Your task to perform on an android device: Clear all items from cart on newegg. Add duracell triple a to the cart on newegg, then select checkout. Image 0: 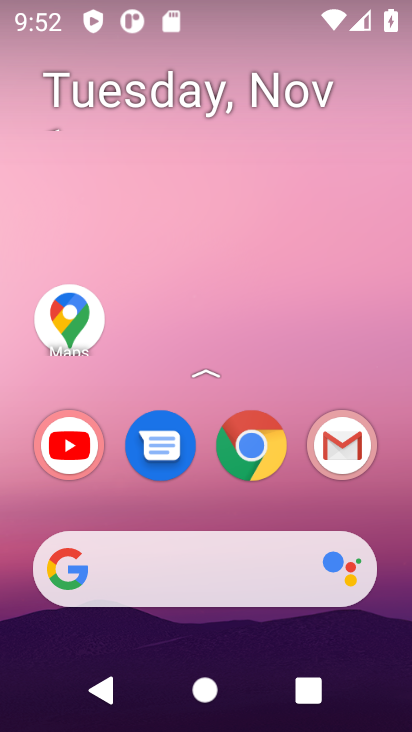
Step 0: click (245, 441)
Your task to perform on an android device: Clear all items from cart on newegg. Add duracell triple a to the cart on newegg, then select checkout. Image 1: 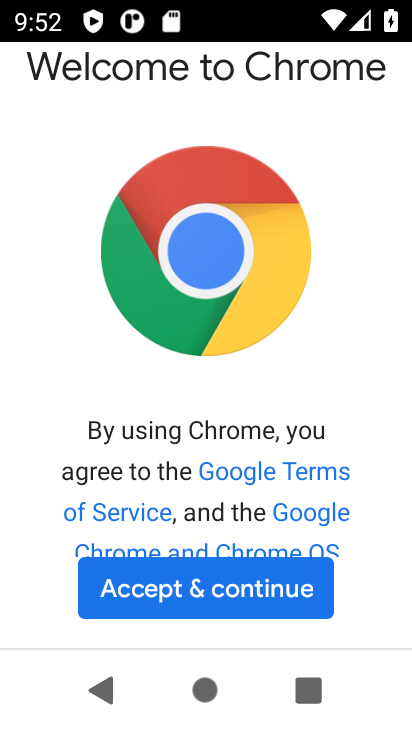
Step 1: click (207, 591)
Your task to perform on an android device: Clear all items from cart on newegg. Add duracell triple a to the cart on newegg, then select checkout. Image 2: 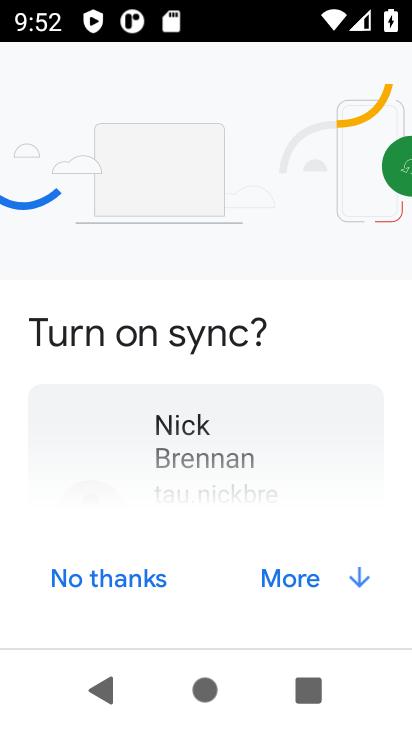
Step 2: click (358, 576)
Your task to perform on an android device: Clear all items from cart on newegg. Add duracell triple a to the cart on newegg, then select checkout. Image 3: 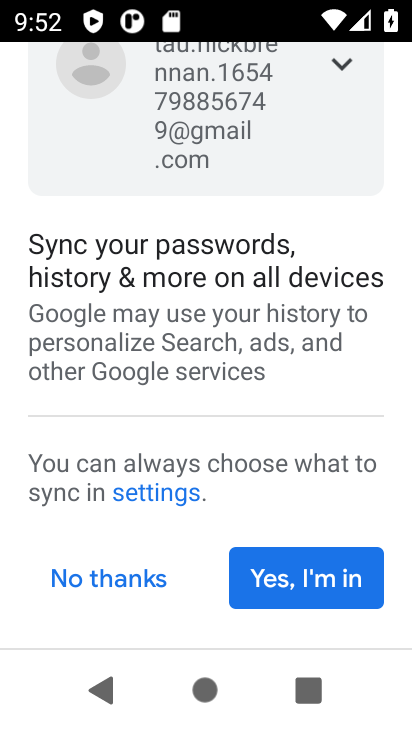
Step 3: click (302, 575)
Your task to perform on an android device: Clear all items from cart on newegg. Add duracell triple a to the cart on newegg, then select checkout. Image 4: 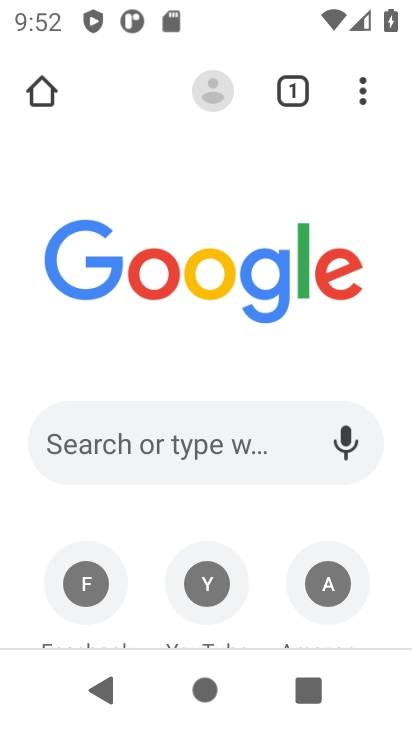
Step 4: click (220, 442)
Your task to perform on an android device: Clear all items from cart on newegg. Add duracell triple a to the cart on newegg, then select checkout. Image 5: 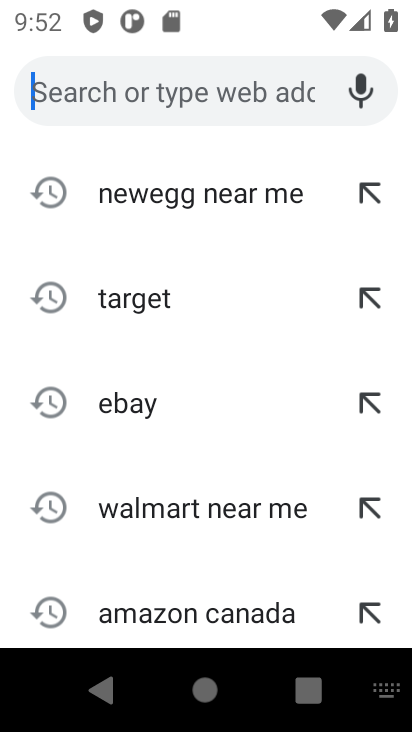
Step 5: type "newegg"
Your task to perform on an android device: Clear all items from cart on newegg. Add duracell triple a to the cart on newegg, then select checkout. Image 6: 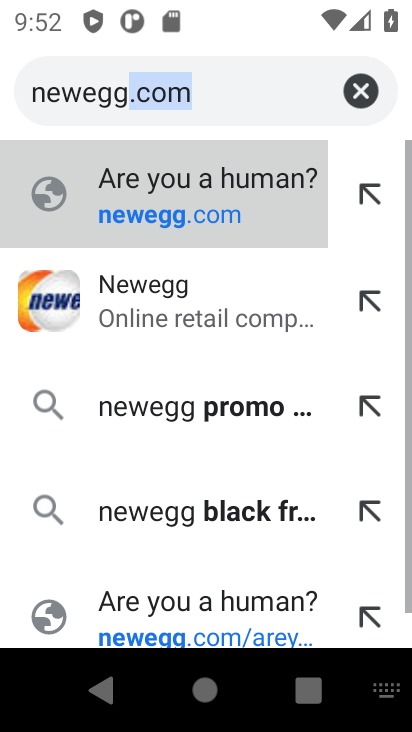
Step 6: press enter
Your task to perform on an android device: Clear all items from cart on newegg. Add duracell triple a to the cart on newegg, then select checkout. Image 7: 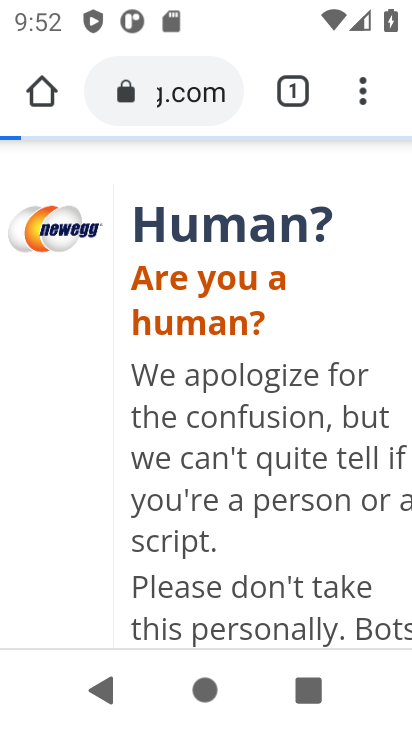
Step 7: click (217, 93)
Your task to perform on an android device: Clear all items from cart on newegg. Add duracell triple a to the cart on newegg, then select checkout. Image 8: 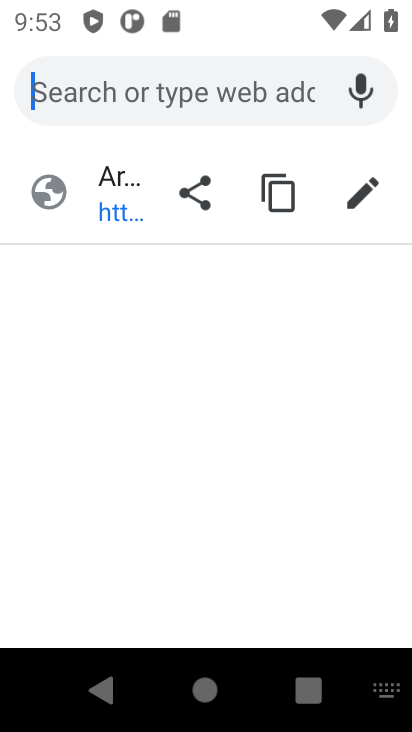
Step 8: type "newegg"
Your task to perform on an android device: Clear all items from cart on newegg. Add duracell triple a to the cart on newegg, then select checkout. Image 9: 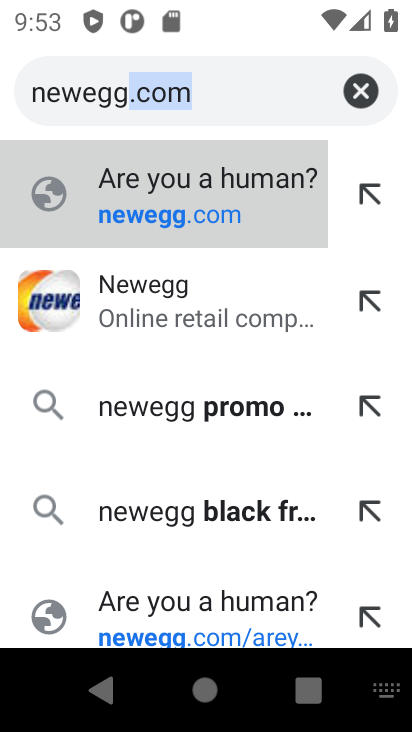
Step 9: click (214, 90)
Your task to perform on an android device: Clear all items from cart on newegg. Add duracell triple a to the cart on newegg, then select checkout. Image 10: 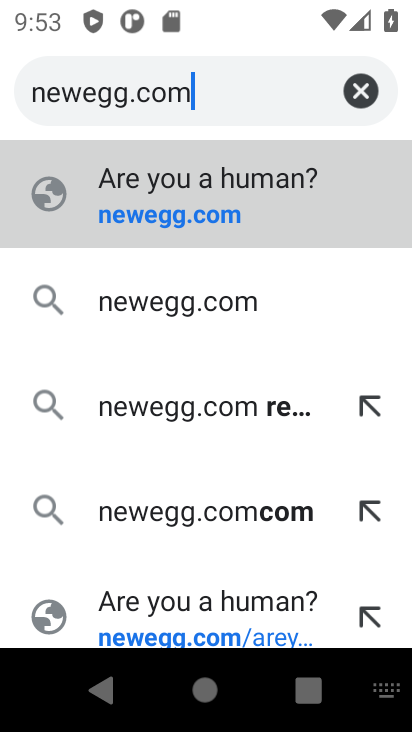
Step 10: click (193, 288)
Your task to perform on an android device: Clear all items from cart on newegg. Add duracell triple a to the cart on newegg, then select checkout. Image 11: 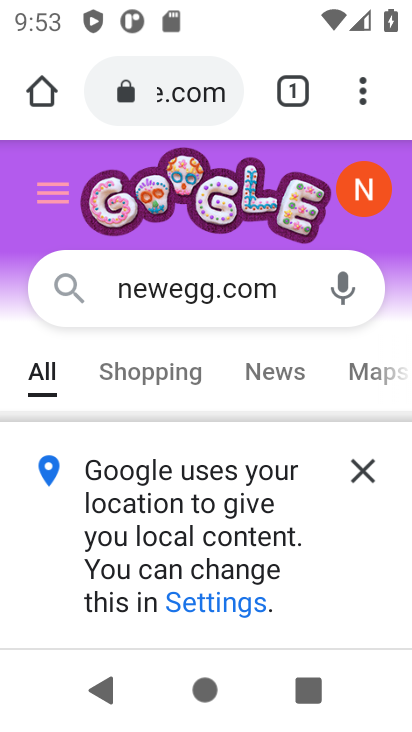
Step 11: click (360, 471)
Your task to perform on an android device: Clear all items from cart on newegg. Add duracell triple a to the cart on newegg, then select checkout. Image 12: 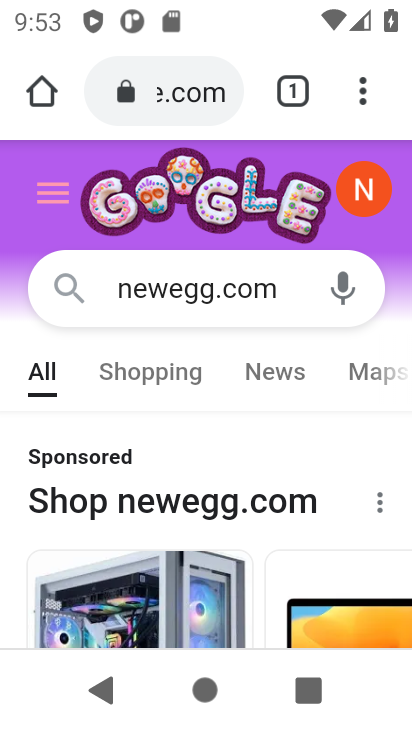
Step 12: drag from (245, 532) to (267, 210)
Your task to perform on an android device: Clear all items from cart on newegg. Add duracell triple a to the cart on newegg, then select checkout. Image 13: 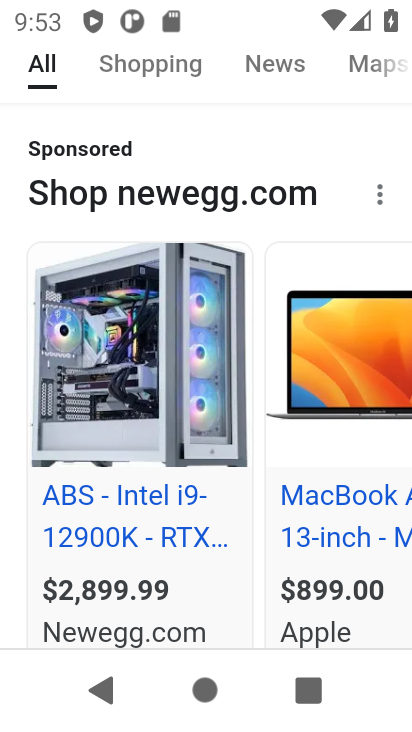
Step 13: drag from (205, 571) to (261, 165)
Your task to perform on an android device: Clear all items from cart on newegg. Add duracell triple a to the cart on newegg, then select checkout. Image 14: 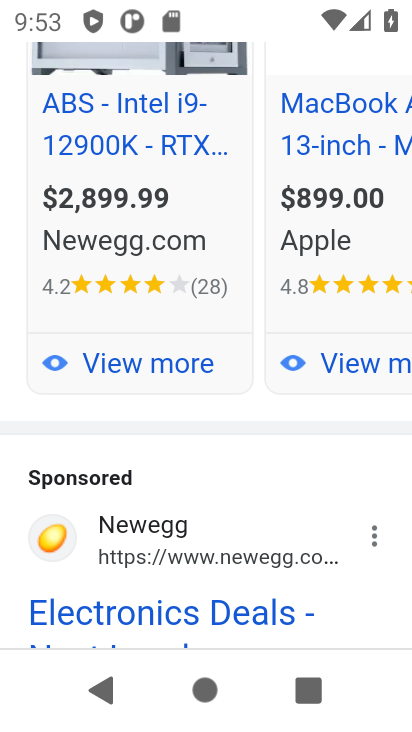
Step 14: click (170, 527)
Your task to perform on an android device: Clear all items from cart on newegg. Add duracell triple a to the cart on newegg, then select checkout. Image 15: 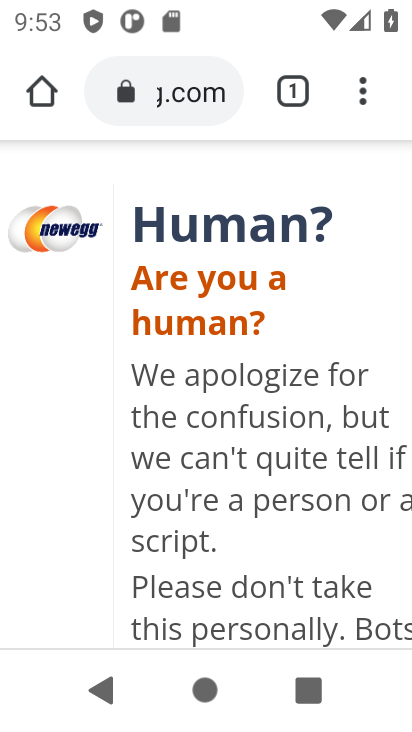
Step 15: task complete